Your task to perform on an android device: What's the weather going to be this weekend? Image 0: 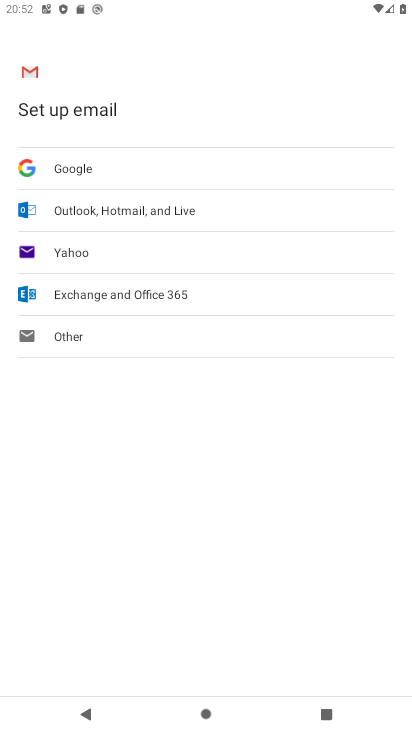
Step 0: press home button
Your task to perform on an android device: What's the weather going to be this weekend? Image 1: 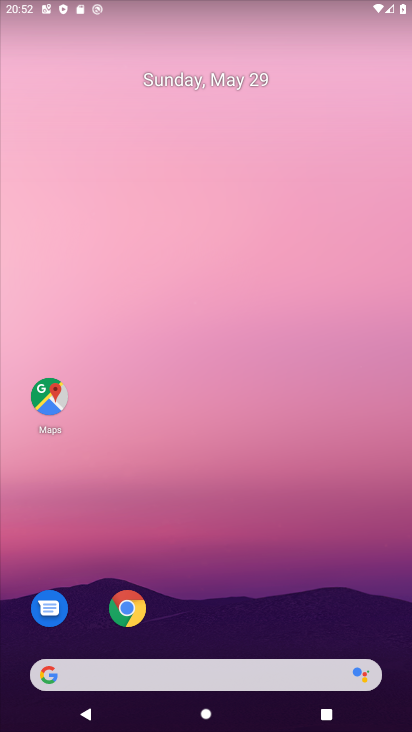
Step 1: click (268, 671)
Your task to perform on an android device: What's the weather going to be this weekend? Image 2: 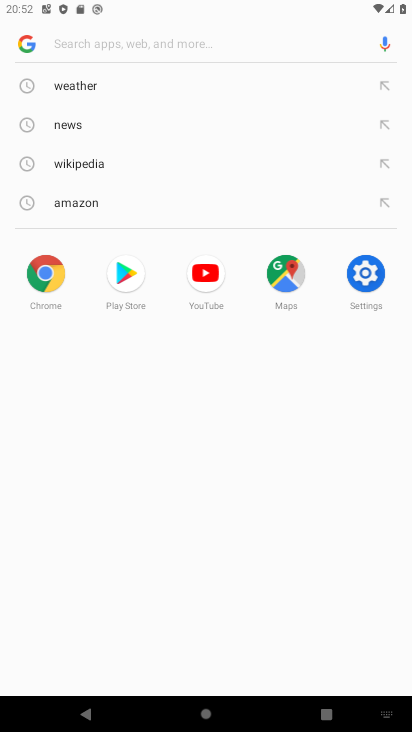
Step 2: click (72, 83)
Your task to perform on an android device: What's the weather going to be this weekend? Image 3: 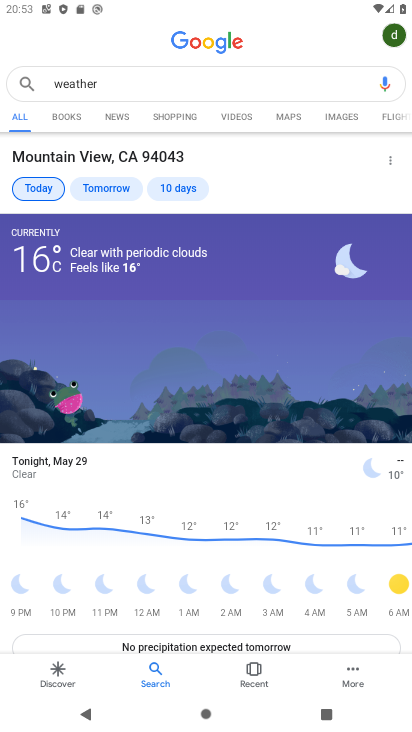
Step 3: click (189, 187)
Your task to perform on an android device: What's the weather going to be this weekend? Image 4: 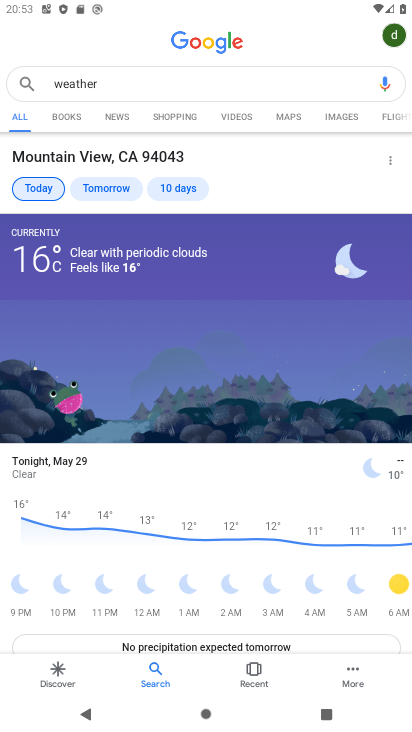
Step 4: click (185, 186)
Your task to perform on an android device: What's the weather going to be this weekend? Image 5: 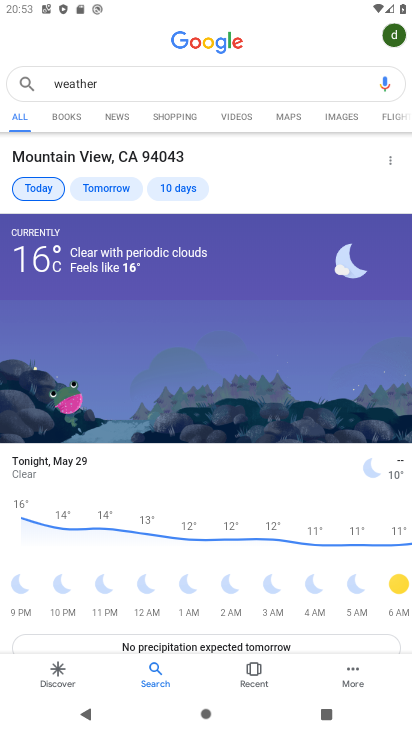
Step 5: click (185, 186)
Your task to perform on an android device: What's the weather going to be this weekend? Image 6: 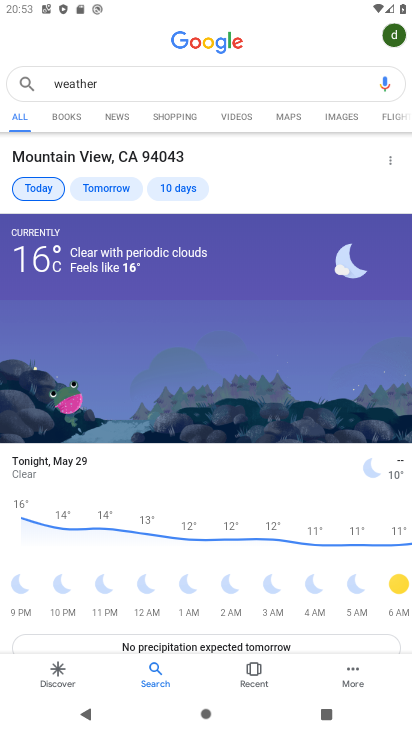
Step 6: click (185, 186)
Your task to perform on an android device: What's the weather going to be this weekend? Image 7: 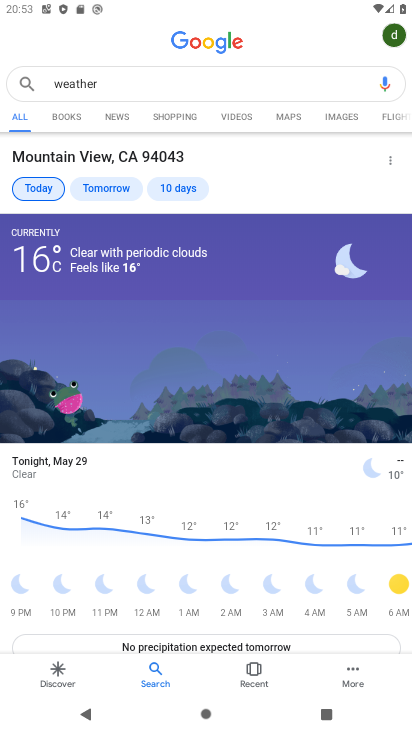
Step 7: click (185, 186)
Your task to perform on an android device: What's the weather going to be this weekend? Image 8: 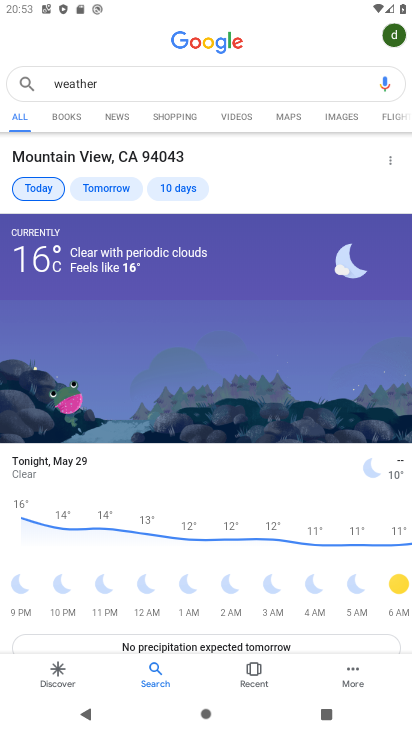
Step 8: task complete